Your task to perform on an android device: Open Google Image 0: 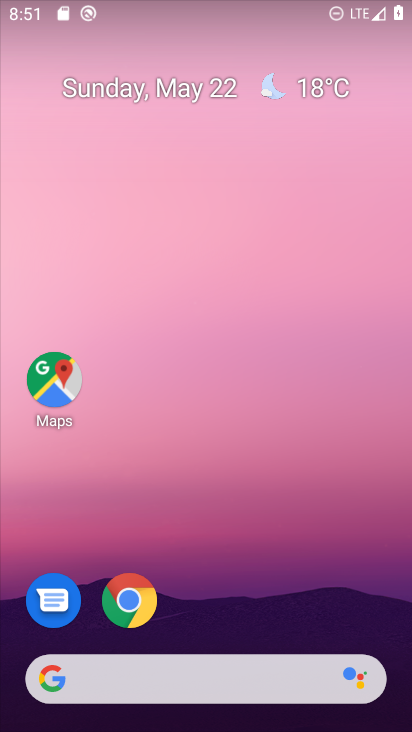
Step 0: click (380, 624)
Your task to perform on an android device: Open Google Image 1: 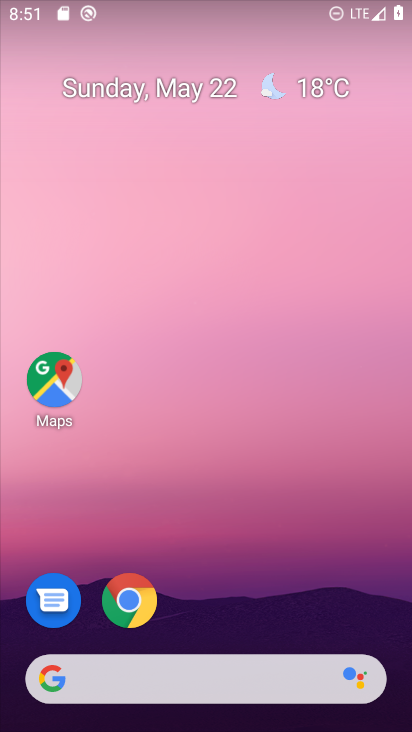
Step 1: drag from (307, 237) to (267, 58)
Your task to perform on an android device: Open Google Image 2: 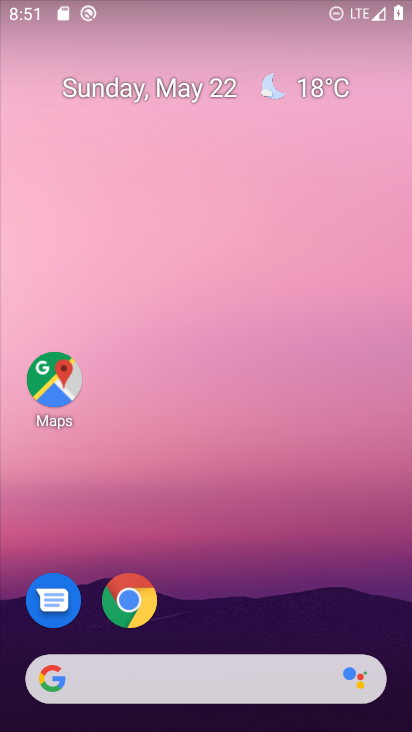
Step 2: click (356, 637)
Your task to perform on an android device: Open Google Image 3: 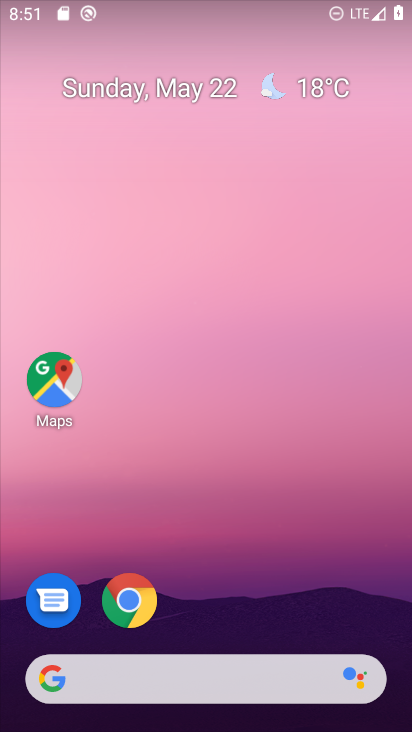
Step 3: drag from (368, 223) to (291, 0)
Your task to perform on an android device: Open Google Image 4: 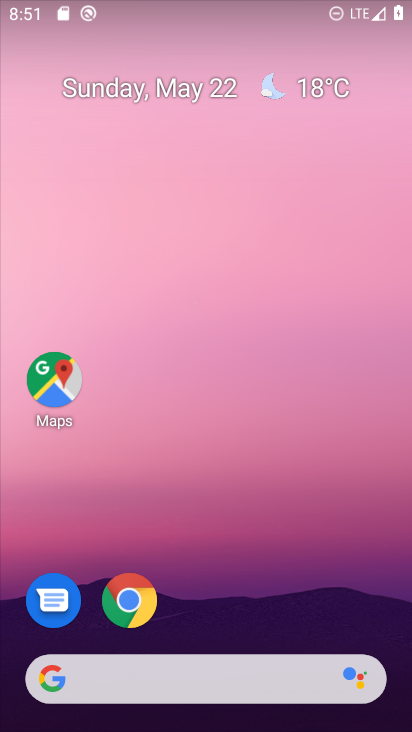
Step 4: click (289, 6)
Your task to perform on an android device: Open Google Image 5: 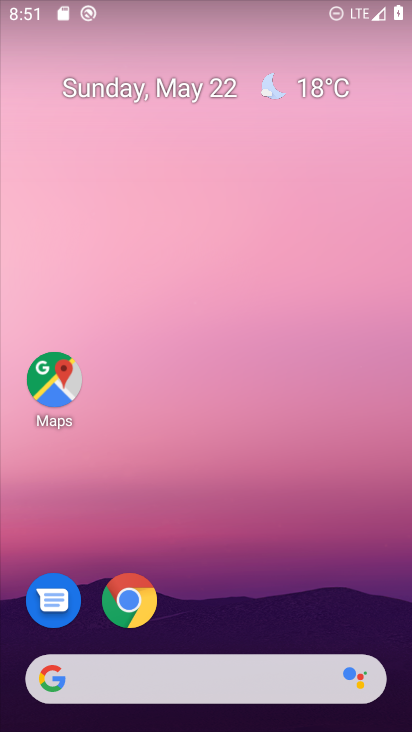
Step 5: drag from (259, 581) to (207, 6)
Your task to perform on an android device: Open Google Image 6: 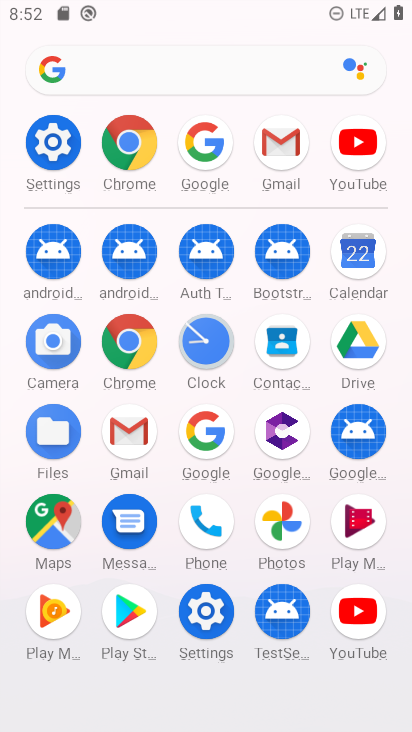
Step 6: click (211, 451)
Your task to perform on an android device: Open Google Image 7: 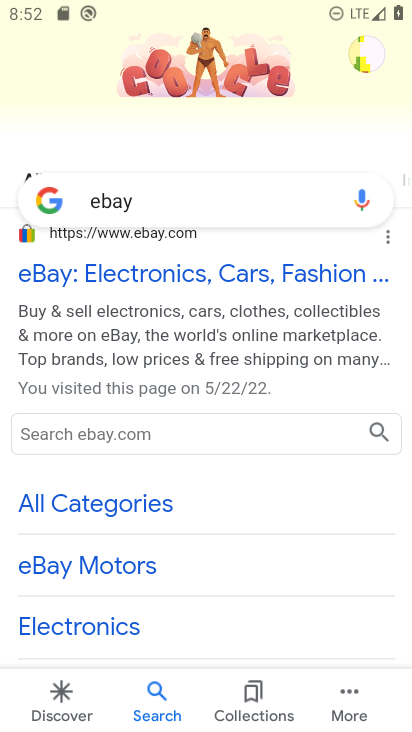
Step 7: task complete